Your task to perform on an android device: Open wifi settings Image 0: 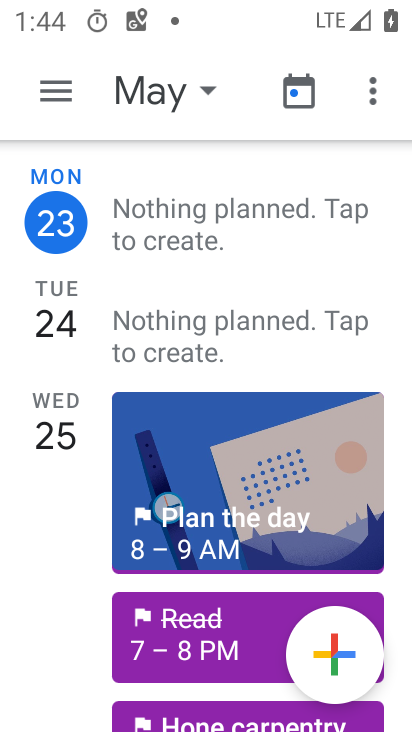
Step 0: press home button
Your task to perform on an android device: Open wifi settings Image 1: 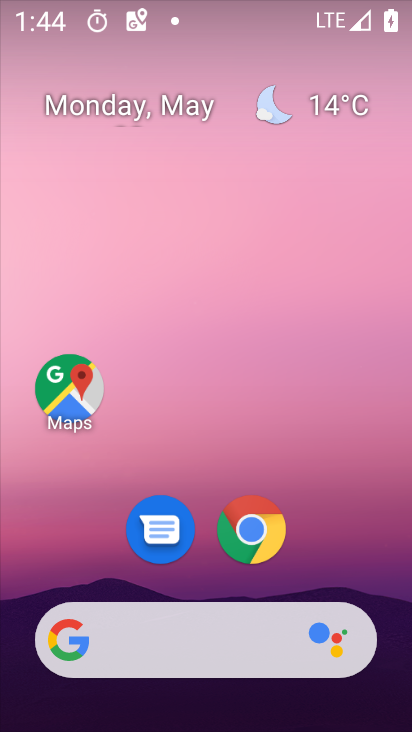
Step 1: drag from (354, 546) to (349, 118)
Your task to perform on an android device: Open wifi settings Image 2: 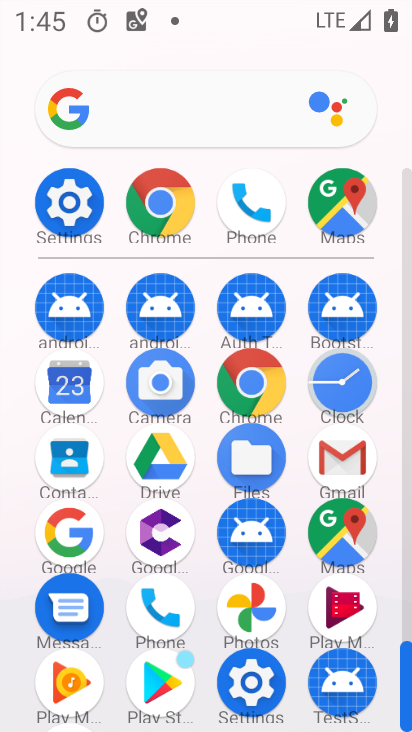
Step 2: click (70, 217)
Your task to perform on an android device: Open wifi settings Image 3: 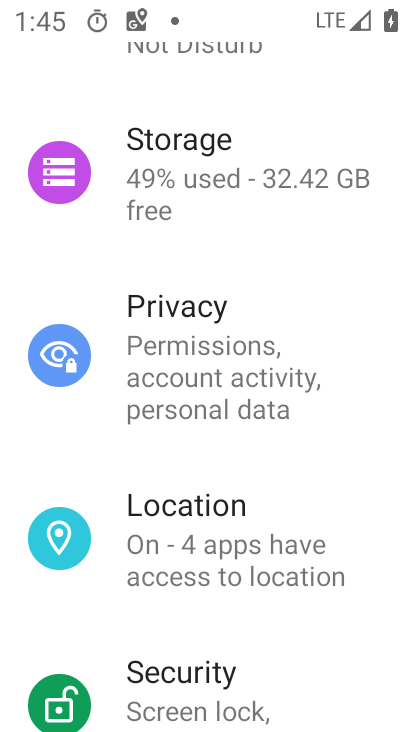
Step 3: drag from (339, 568) to (346, 401)
Your task to perform on an android device: Open wifi settings Image 4: 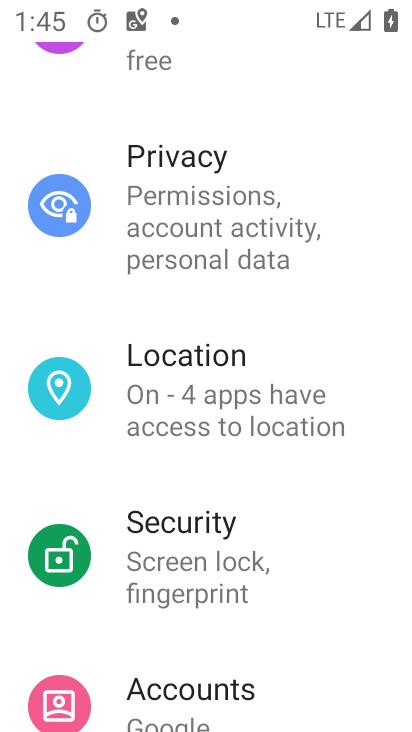
Step 4: drag from (342, 620) to (338, 505)
Your task to perform on an android device: Open wifi settings Image 5: 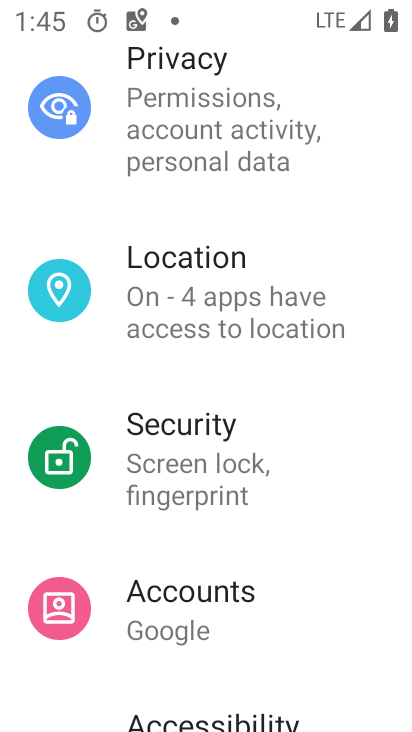
Step 5: drag from (326, 625) to (336, 437)
Your task to perform on an android device: Open wifi settings Image 6: 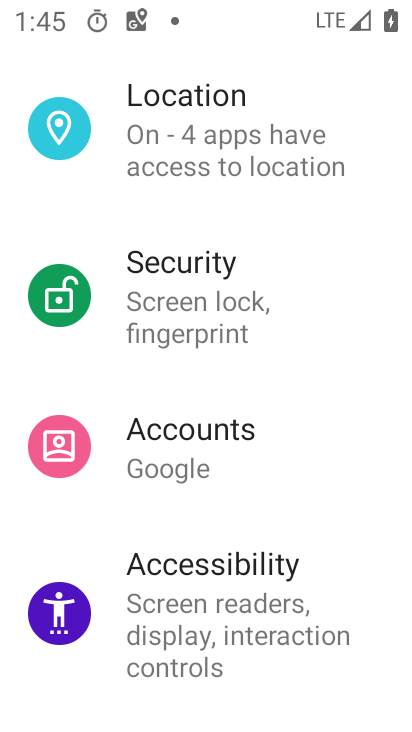
Step 6: drag from (325, 570) to (327, 426)
Your task to perform on an android device: Open wifi settings Image 7: 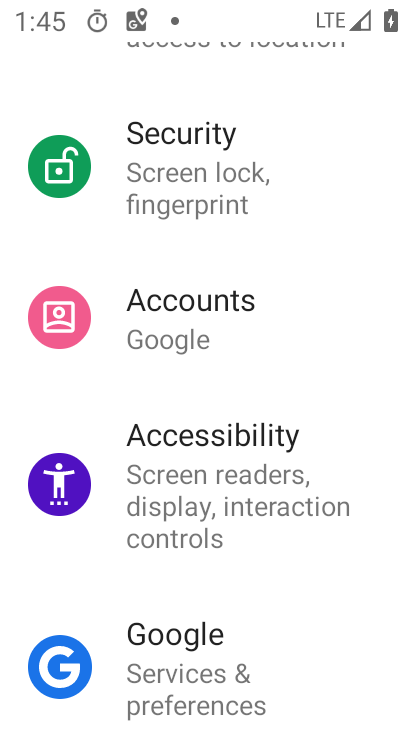
Step 7: drag from (331, 625) to (333, 388)
Your task to perform on an android device: Open wifi settings Image 8: 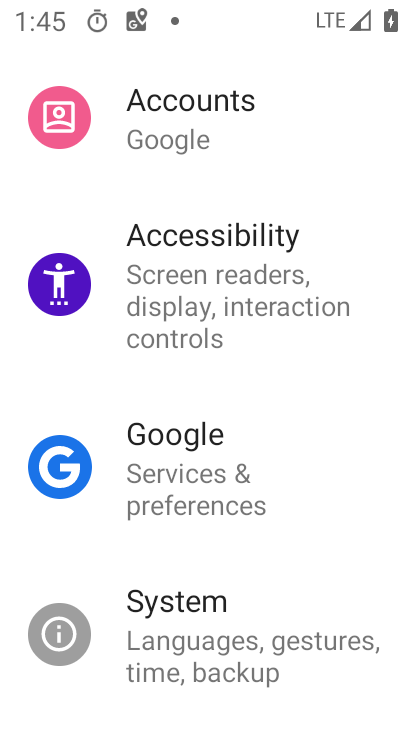
Step 8: drag from (317, 575) to (324, 371)
Your task to perform on an android device: Open wifi settings Image 9: 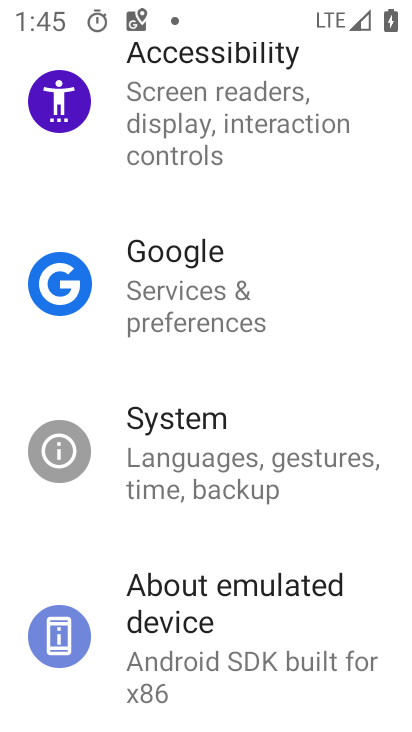
Step 9: drag from (340, 290) to (343, 441)
Your task to perform on an android device: Open wifi settings Image 10: 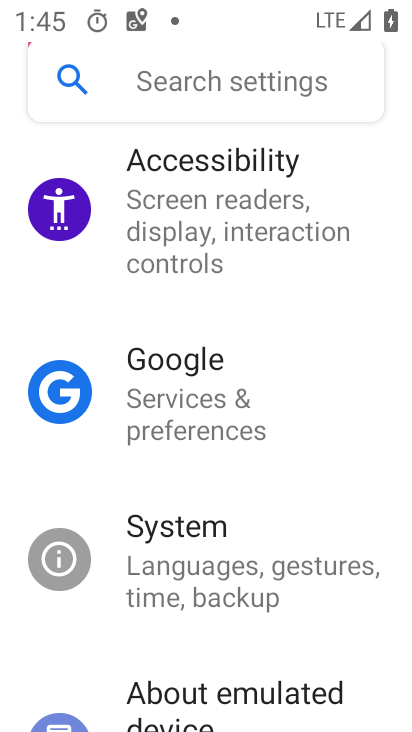
Step 10: drag from (333, 597) to (342, 392)
Your task to perform on an android device: Open wifi settings Image 11: 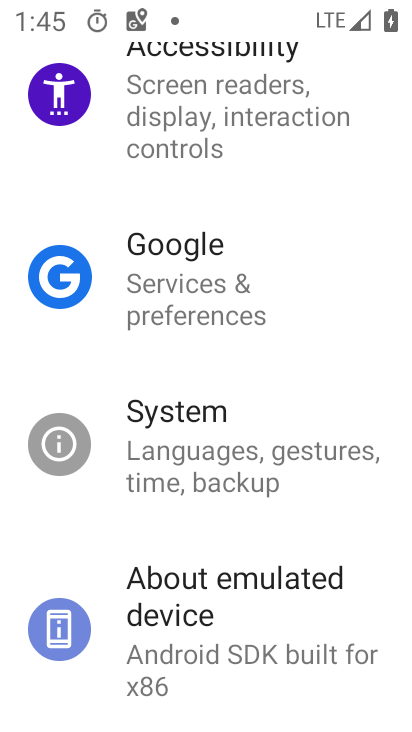
Step 11: drag from (347, 635) to (359, 421)
Your task to perform on an android device: Open wifi settings Image 12: 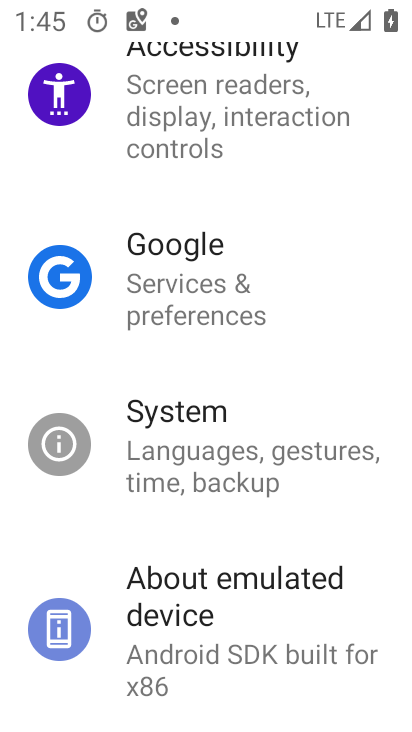
Step 12: drag from (362, 584) to (355, 343)
Your task to perform on an android device: Open wifi settings Image 13: 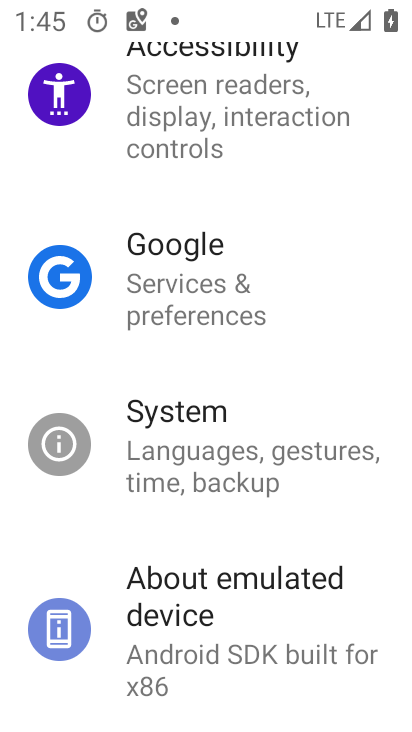
Step 13: drag from (349, 609) to (353, 441)
Your task to perform on an android device: Open wifi settings Image 14: 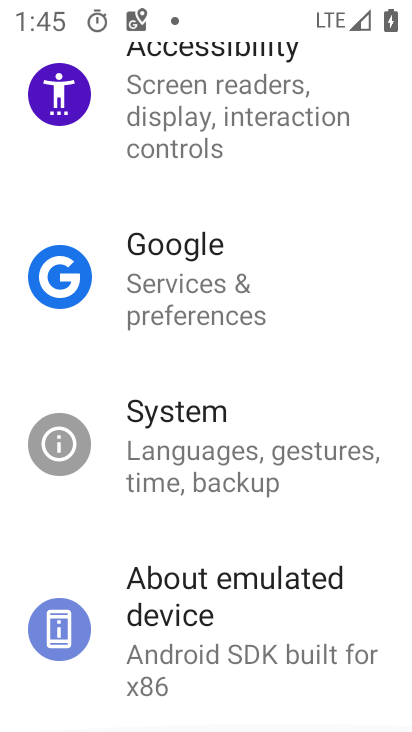
Step 14: drag from (340, 300) to (320, 609)
Your task to perform on an android device: Open wifi settings Image 15: 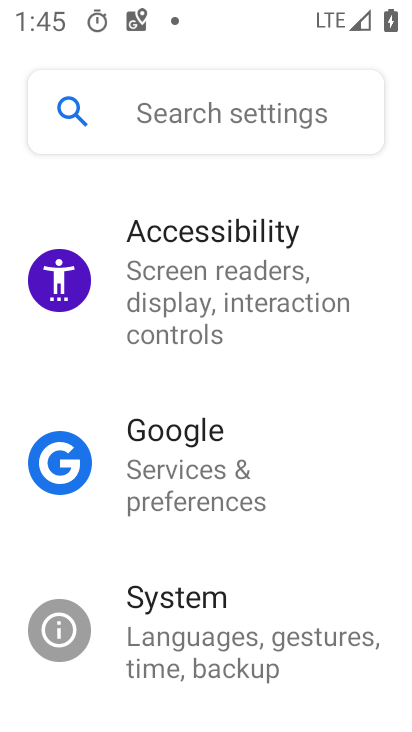
Step 15: drag from (331, 340) to (323, 547)
Your task to perform on an android device: Open wifi settings Image 16: 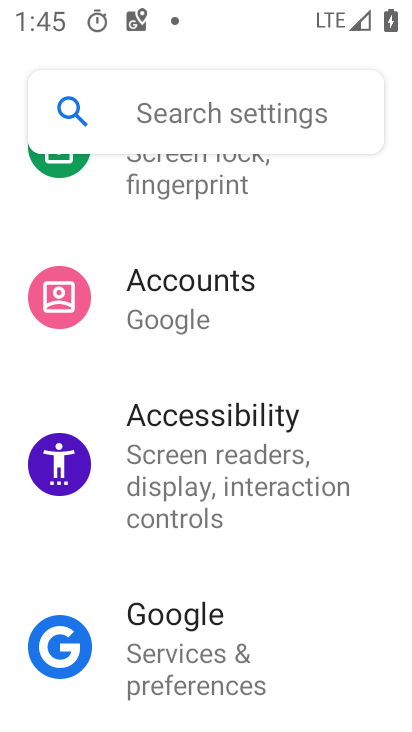
Step 16: drag from (325, 315) to (329, 457)
Your task to perform on an android device: Open wifi settings Image 17: 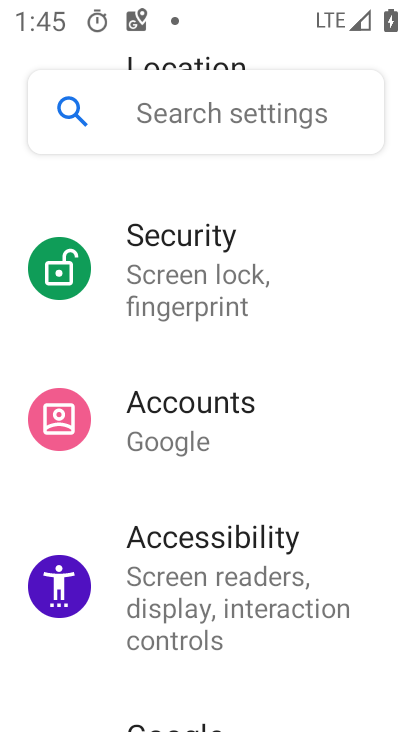
Step 17: drag from (342, 344) to (342, 524)
Your task to perform on an android device: Open wifi settings Image 18: 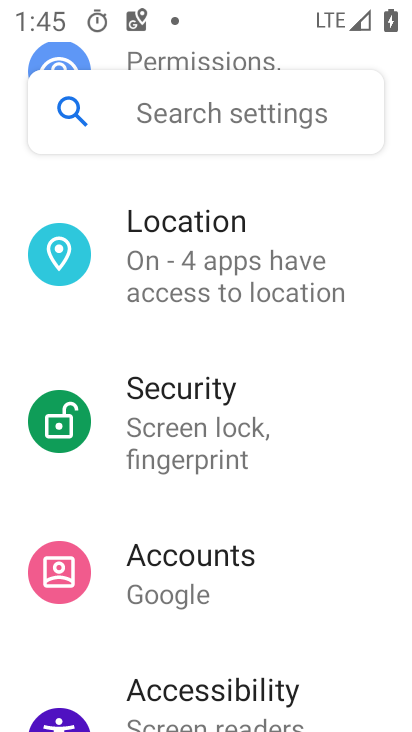
Step 18: drag from (365, 247) to (363, 433)
Your task to perform on an android device: Open wifi settings Image 19: 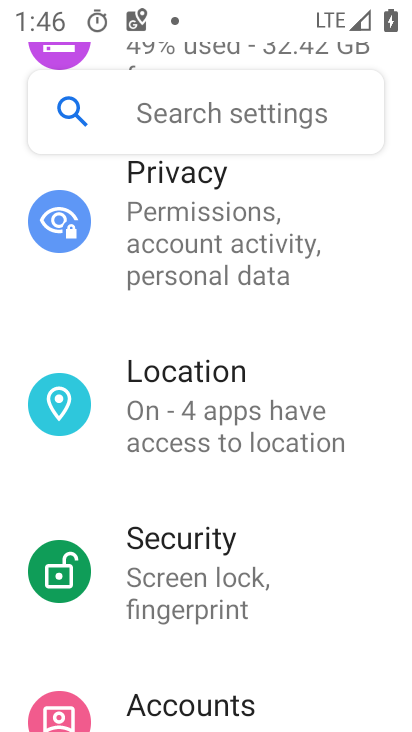
Step 19: drag from (364, 212) to (367, 404)
Your task to perform on an android device: Open wifi settings Image 20: 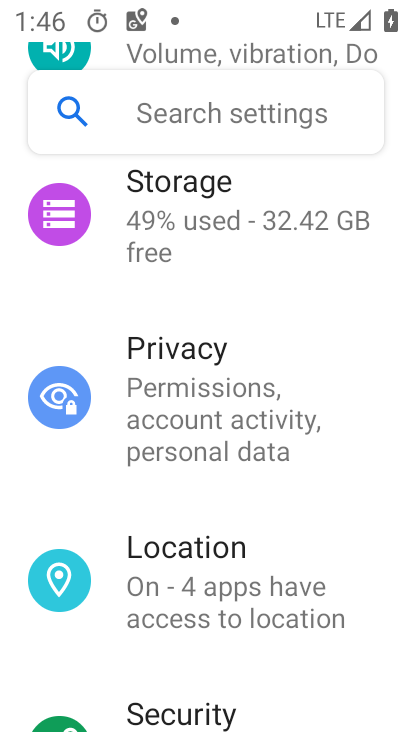
Step 20: drag from (348, 255) to (337, 400)
Your task to perform on an android device: Open wifi settings Image 21: 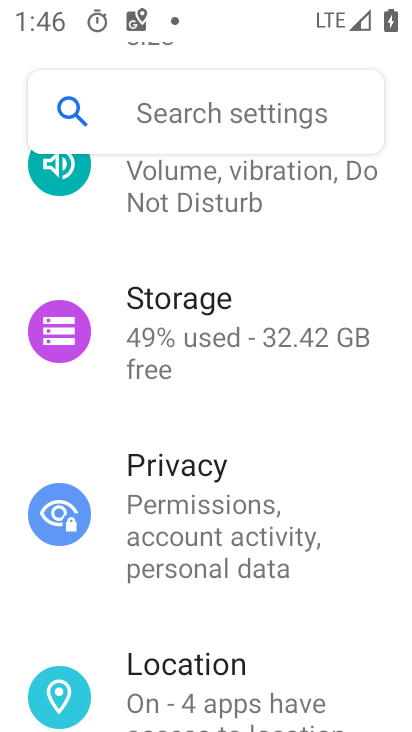
Step 21: drag from (361, 235) to (339, 412)
Your task to perform on an android device: Open wifi settings Image 22: 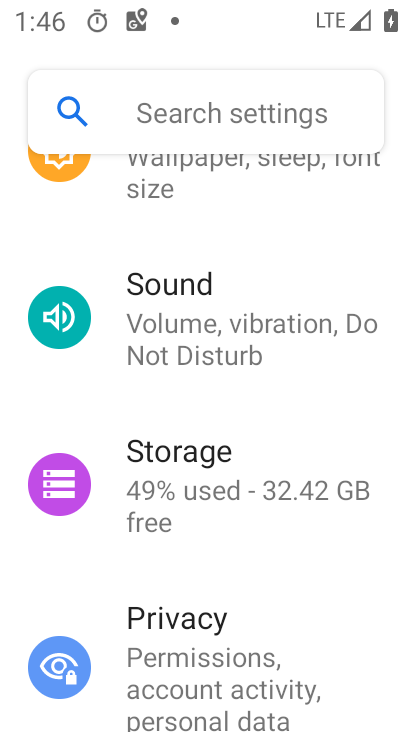
Step 22: drag from (369, 223) to (356, 426)
Your task to perform on an android device: Open wifi settings Image 23: 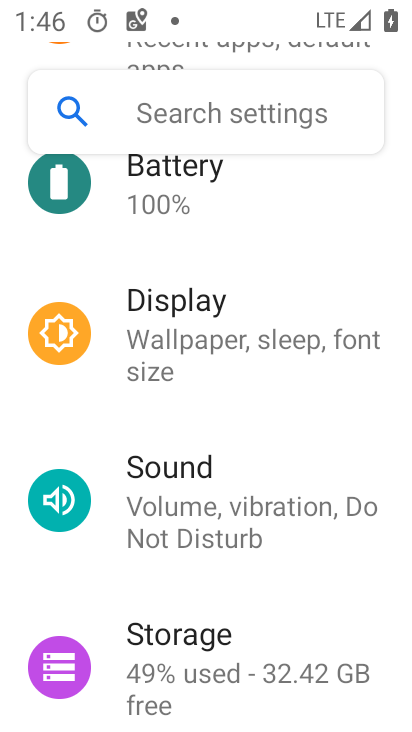
Step 23: drag from (358, 225) to (361, 391)
Your task to perform on an android device: Open wifi settings Image 24: 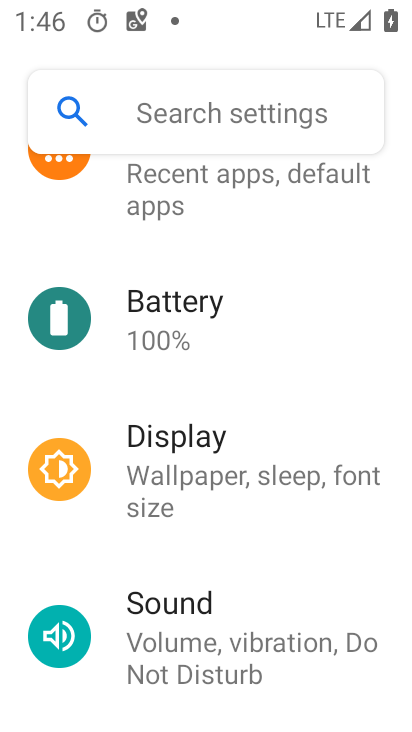
Step 24: drag from (351, 288) to (353, 428)
Your task to perform on an android device: Open wifi settings Image 25: 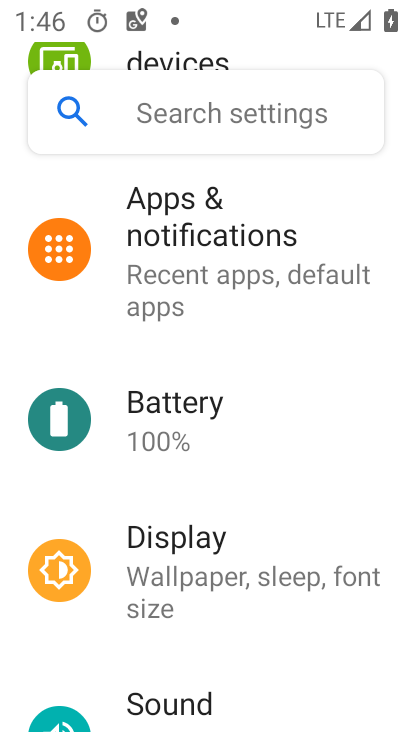
Step 25: drag from (364, 195) to (350, 375)
Your task to perform on an android device: Open wifi settings Image 26: 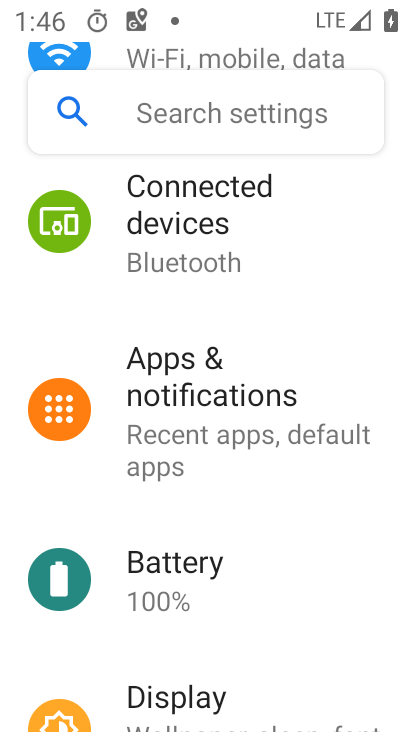
Step 26: drag from (347, 198) to (329, 411)
Your task to perform on an android device: Open wifi settings Image 27: 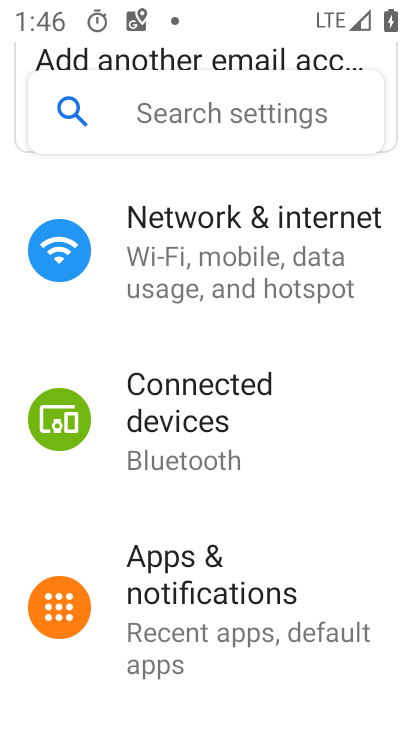
Step 27: click (283, 275)
Your task to perform on an android device: Open wifi settings Image 28: 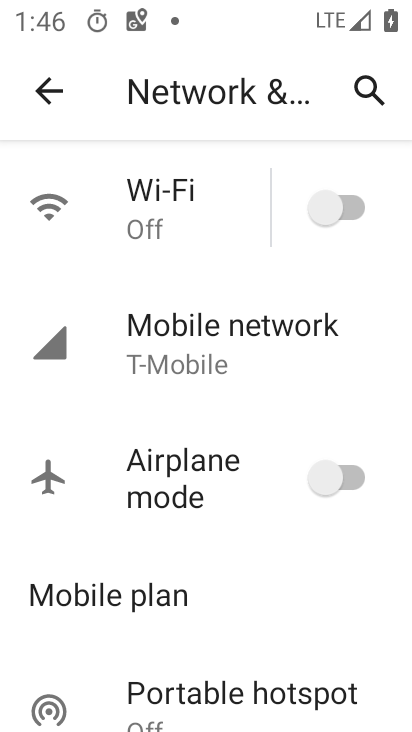
Step 28: click (180, 196)
Your task to perform on an android device: Open wifi settings Image 29: 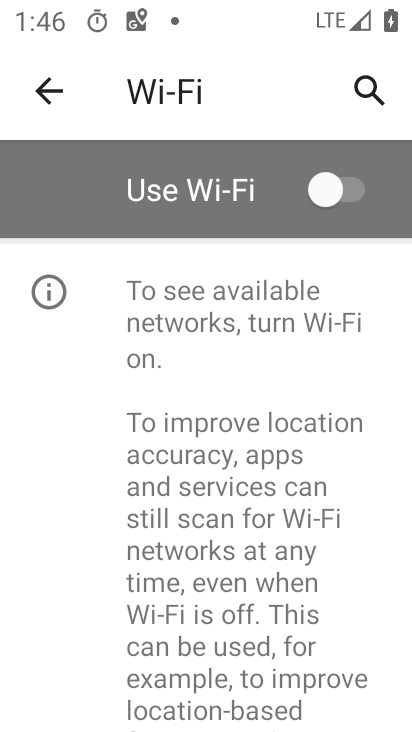
Step 29: task complete